Your task to perform on an android device: turn smart compose on in the gmail app Image 0: 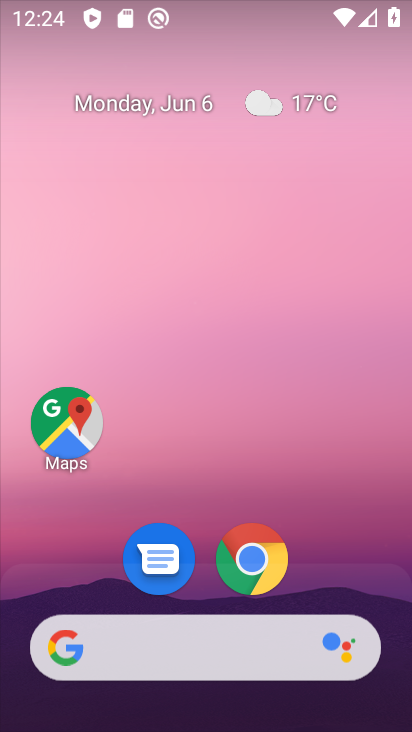
Step 0: drag from (210, 604) to (231, 116)
Your task to perform on an android device: turn smart compose on in the gmail app Image 1: 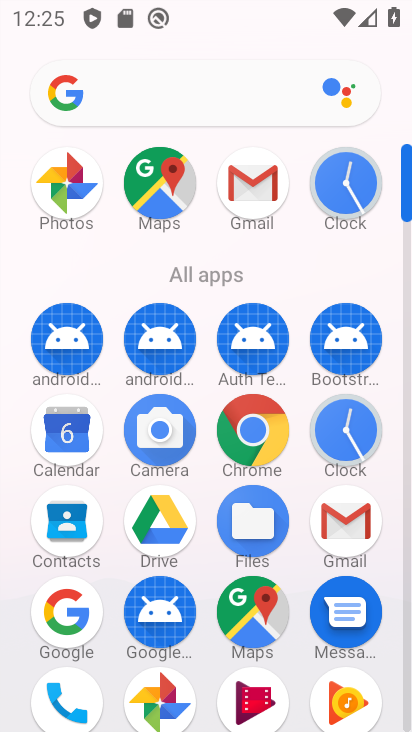
Step 1: click (266, 198)
Your task to perform on an android device: turn smart compose on in the gmail app Image 2: 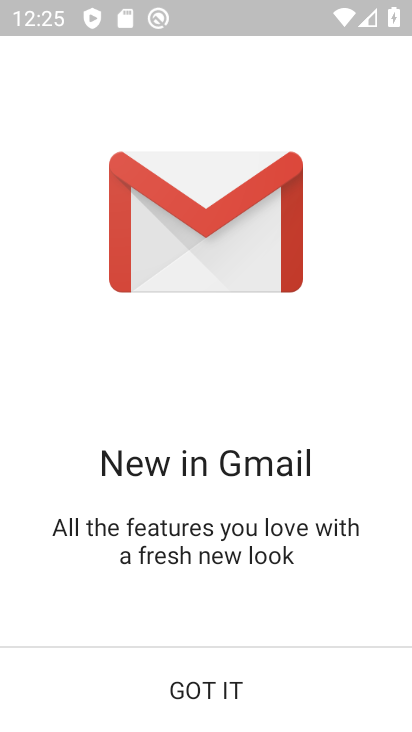
Step 2: click (130, 680)
Your task to perform on an android device: turn smart compose on in the gmail app Image 3: 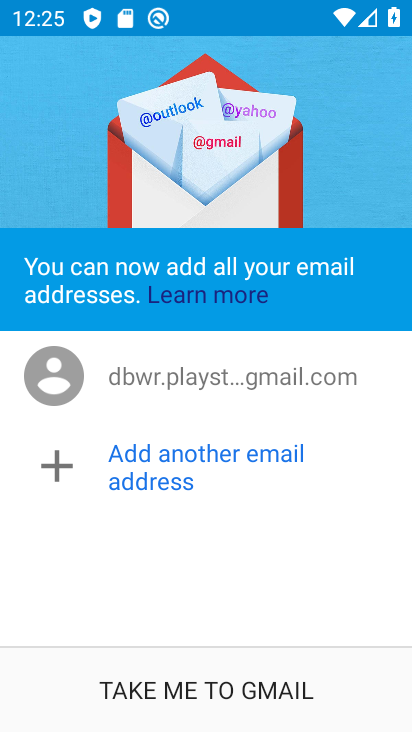
Step 3: click (184, 698)
Your task to perform on an android device: turn smart compose on in the gmail app Image 4: 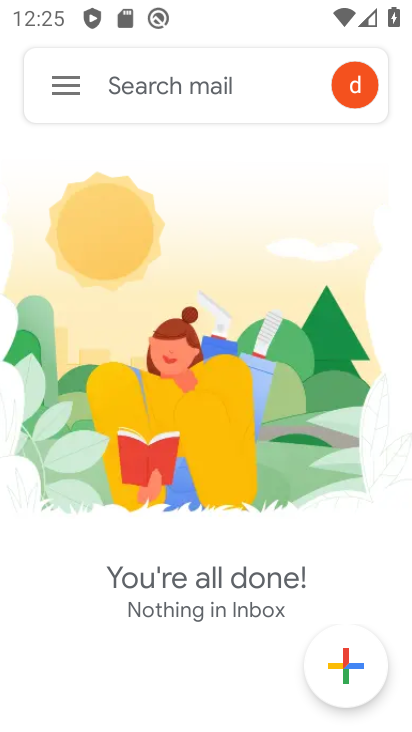
Step 4: click (74, 102)
Your task to perform on an android device: turn smart compose on in the gmail app Image 5: 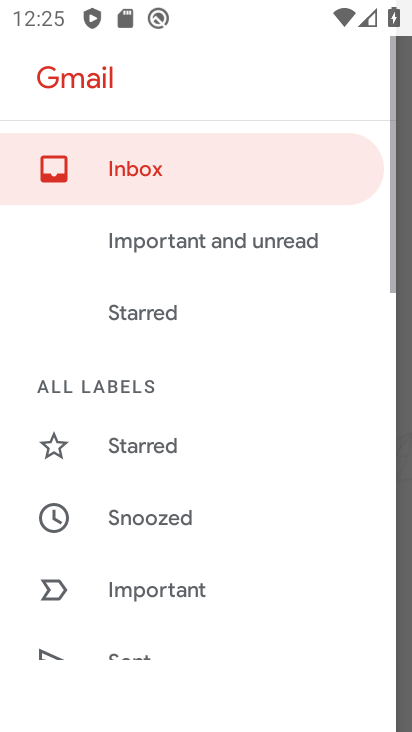
Step 5: drag from (165, 400) to (181, 201)
Your task to perform on an android device: turn smart compose on in the gmail app Image 6: 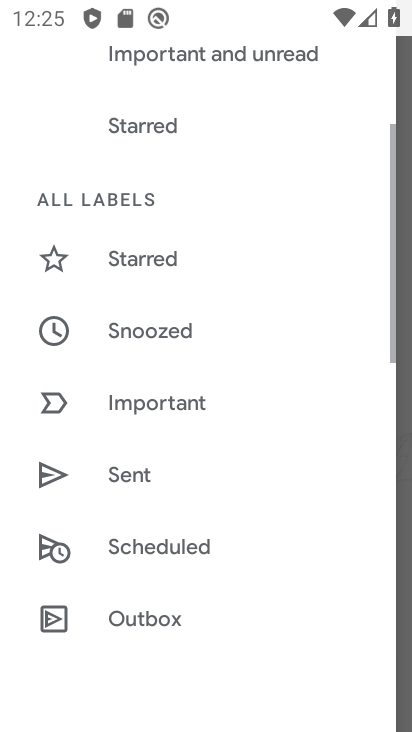
Step 6: drag from (160, 524) to (214, 190)
Your task to perform on an android device: turn smart compose on in the gmail app Image 7: 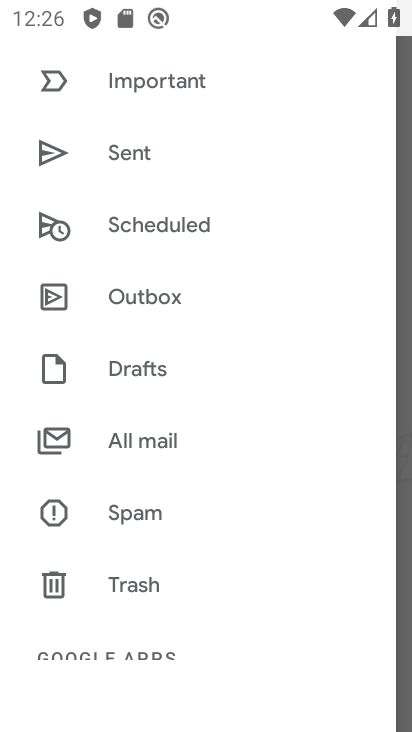
Step 7: drag from (152, 561) to (177, 373)
Your task to perform on an android device: turn smart compose on in the gmail app Image 8: 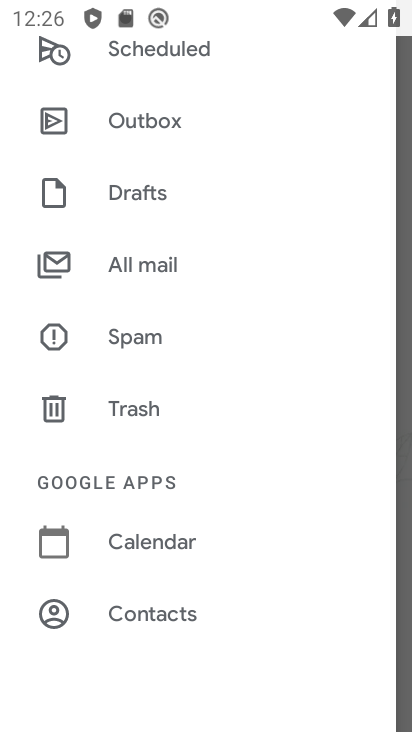
Step 8: drag from (181, 583) to (205, 154)
Your task to perform on an android device: turn smart compose on in the gmail app Image 9: 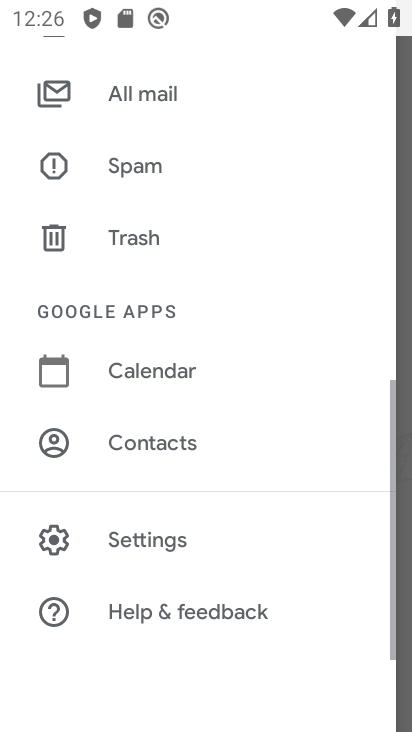
Step 9: click (134, 547)
Your task to perform on an android device: turn smart compose on in the gmail app Image 10: 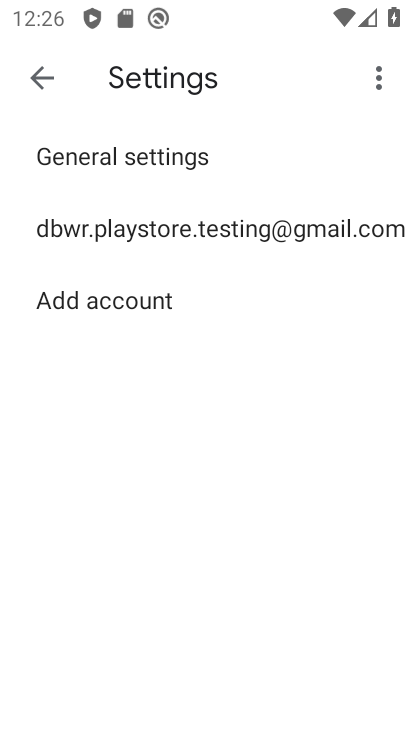
Step 10: click (129, 219)
Your task to perform on an android device: turn smart compose on in the gmail app Image 11: 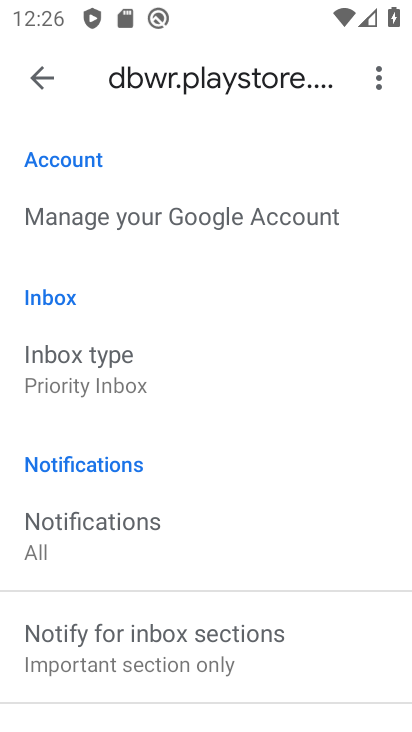
Step 11: task complete